Your task to perform on an android device: Open calendar and show me the fourth week of next month Image 0: 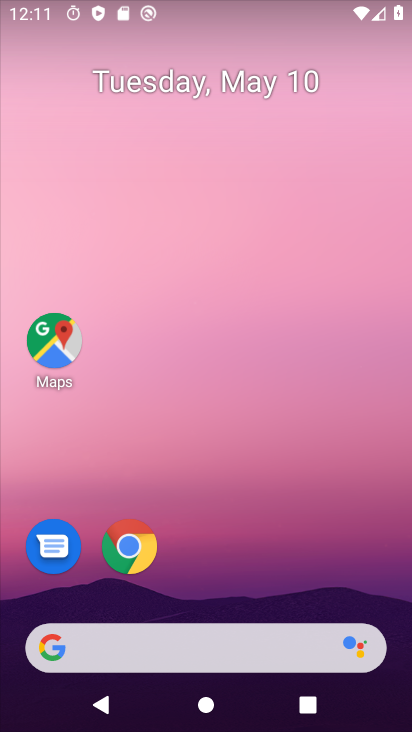
Step 0: drag from (271, 558) to (330, 133)
Your task to perform on an android device: Open calendar and show me the fourth week of next month Image 1: 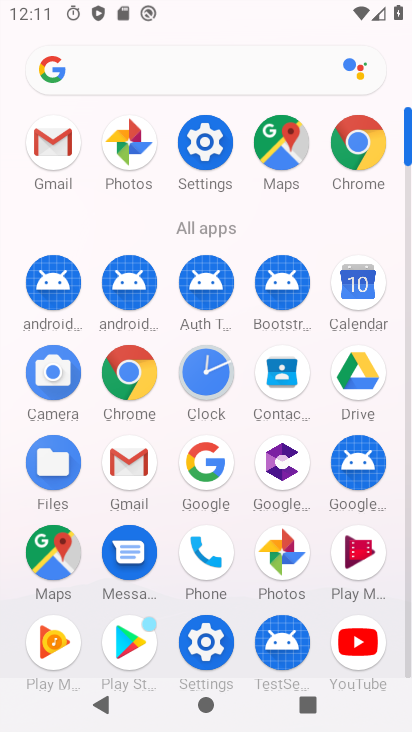
Step 1: click (353, 279)
Your task to perform on an android device: Open calendar and show me the fourth week of next month Image 2: 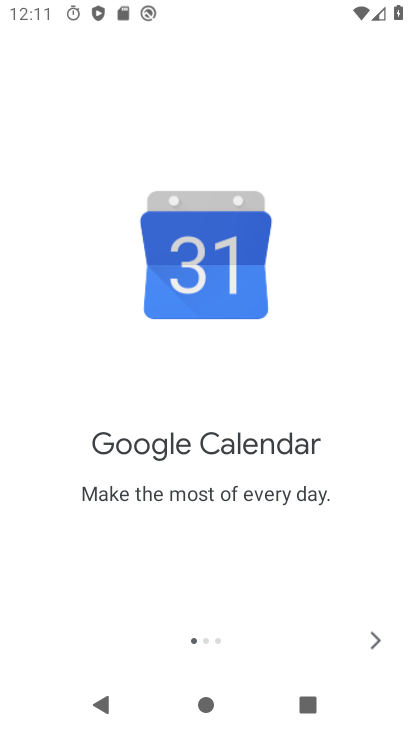
Step 2: click (378, 656)
Your task to perform on an android device: Open calendar and show me the fourth week of next month Image 3: 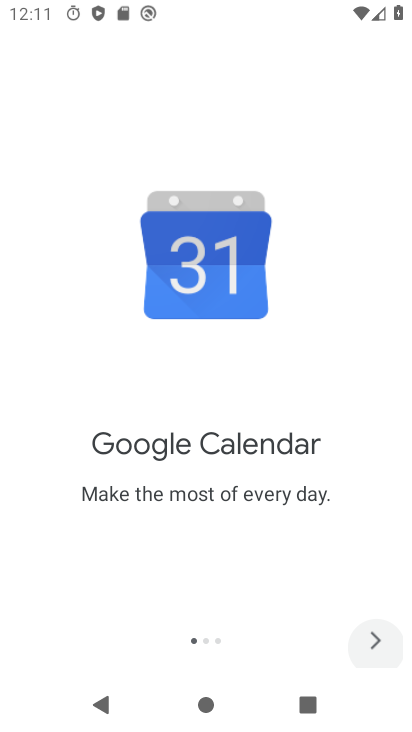
Step 3: click (378, 656)
Your task to perform on an android device: Open calendar and show me the fourth week of next month Image 4: 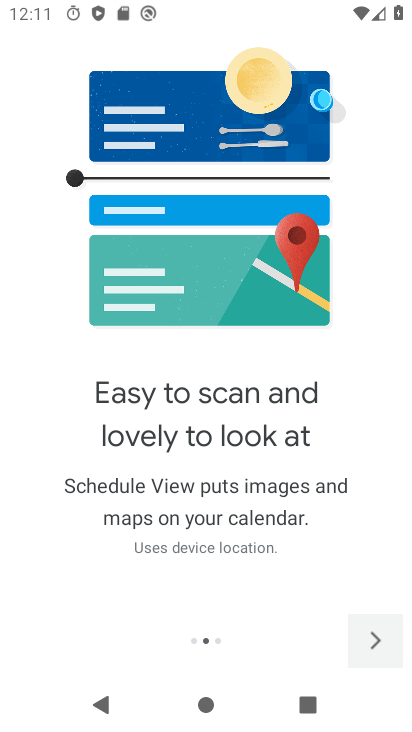
Step 4: click (378, 656)
Your task to perform on an android device: Open calendar and show me the fourth week of next month Image 5: 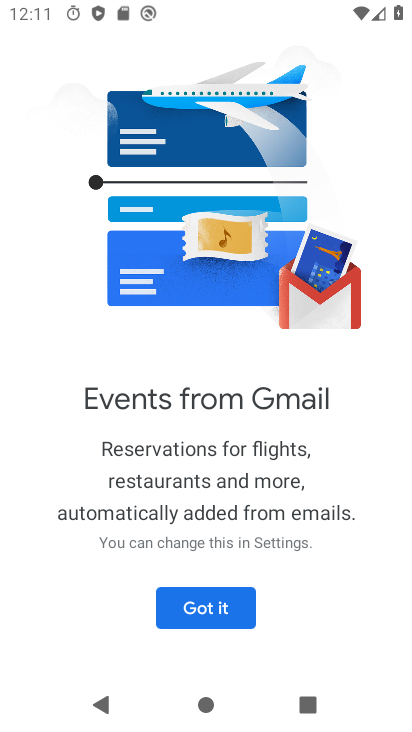
Step 5: click (215, 622)
Your task to perform on an android device: Open calendar and show me the fourth week of next month Image 6: 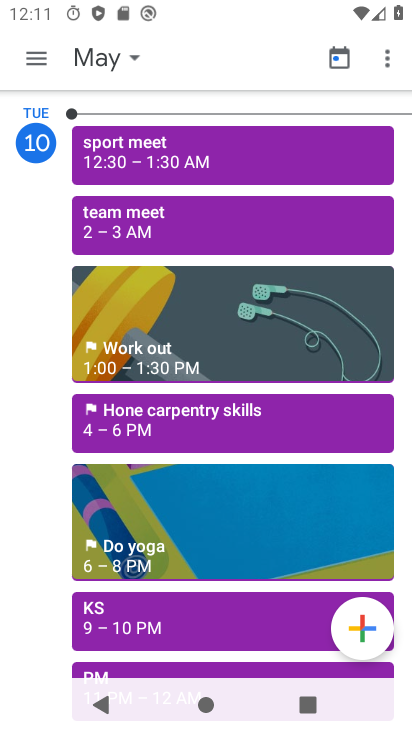
Step 6: click (124, 41)
Your task to perform on an android device: Open calendar and show me the fourth week of next month Image 7: 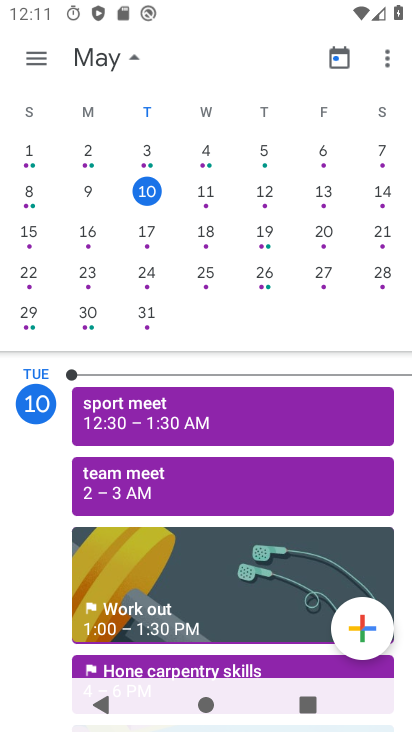
Step 7: drag from (372, 211) to (0, 229)
Your task to perform on an android device: Open calendar and show me the fourth week of next month Image 8: 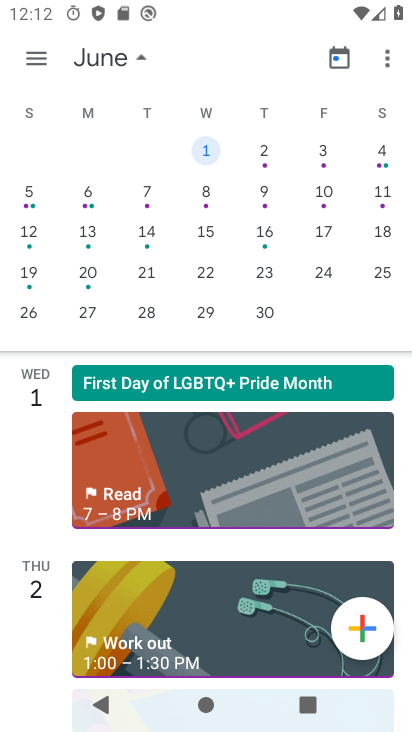
Step 8: click (203, 276)
Your task to perform on an android device: Open calendar and show me the fourth week of next month Image 9: 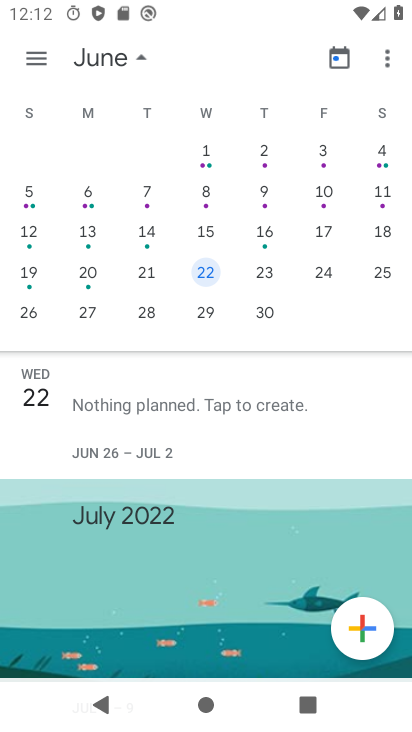
Step 9: task complete